Your task to perform on an android device: Search for sushi restaurants on Maps Image 0: 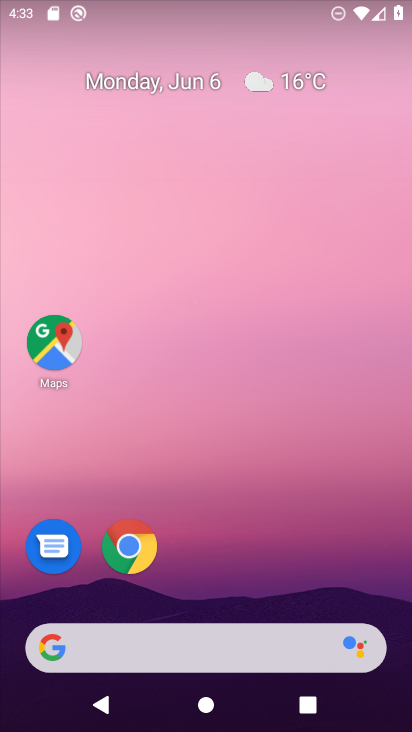
Step 0: drag from (213, 613) to (181, 133)
Your task to perform on an android device: Search for sushi restaurants on Maps Image 1: 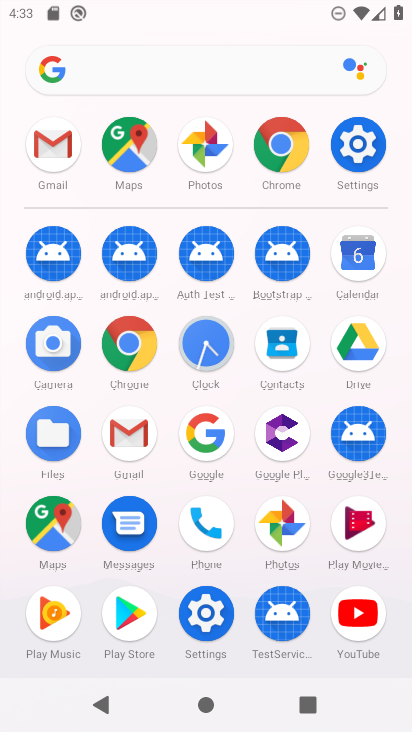
Step 1: click (62, 523)
Your task to perform on an android device: Search for sushi restaurants on Maps Image 2: 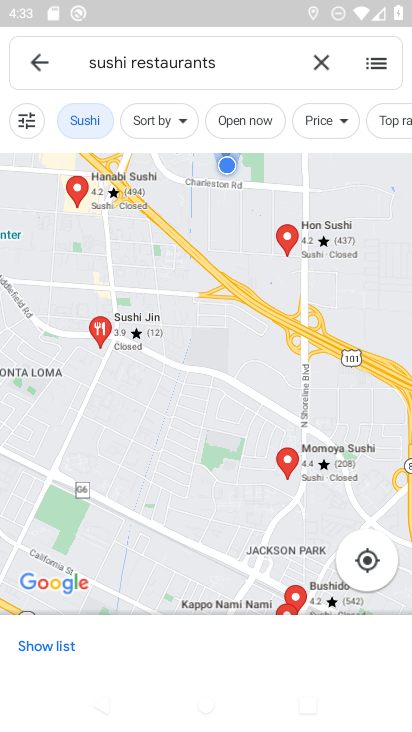
Step 2: task complete